Your task to perform on an android device: Go to Wikipedia Image 0: 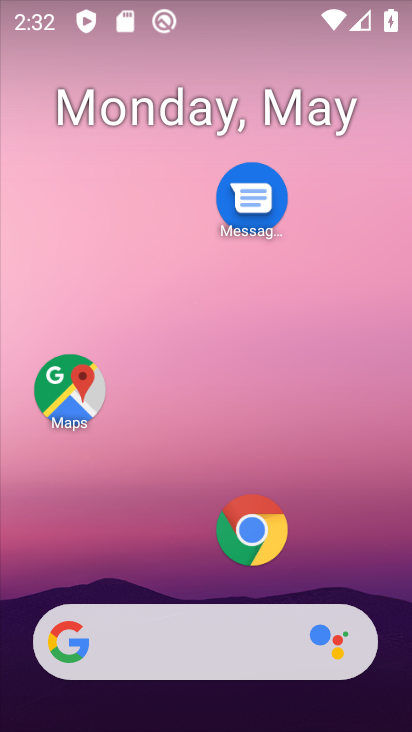
Step 0: click (261, 513)
Your task to perform on an android device: Go to Wikipedia Image 1: 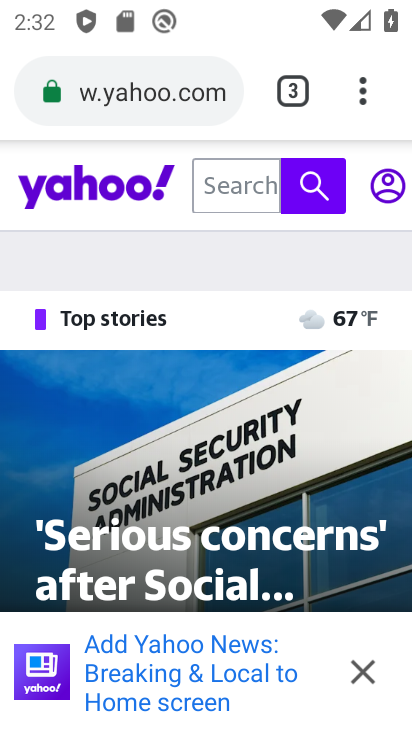
Step 1: click (302, 84)
Your task to perform on an android device: Go to Wikipedia Image 2: 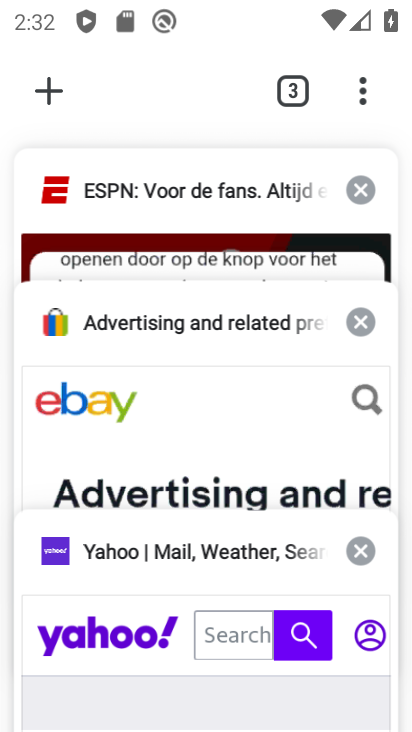
Step 2: click (44, 90)
Your task to perform on an android device: Go to Wikipedia Image 3: 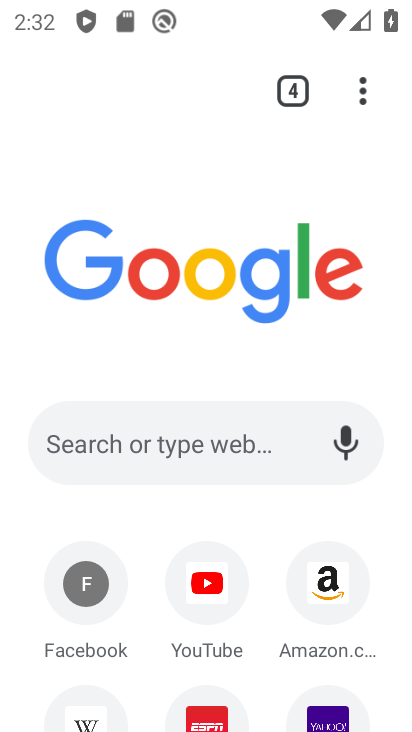
Step 3: click (88, 708)
Your task to perform on an android device: Go to Wikipedia Image 4: 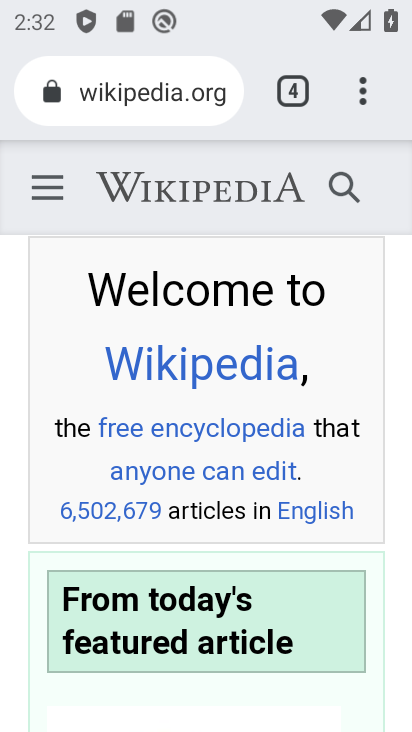
Step 4: task complete